Your task to perform on an android device: turn on the 24-hour format for clock Image 0: 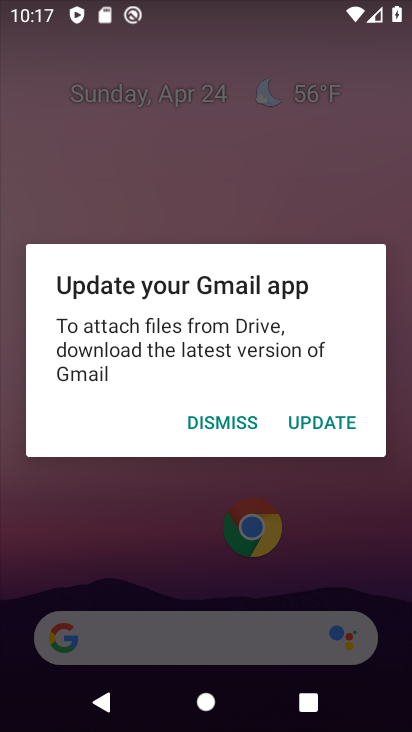
Step 0: click (241, 422)
Your task to perform on an android device: turn on the 24-hour format for clock Image 1: 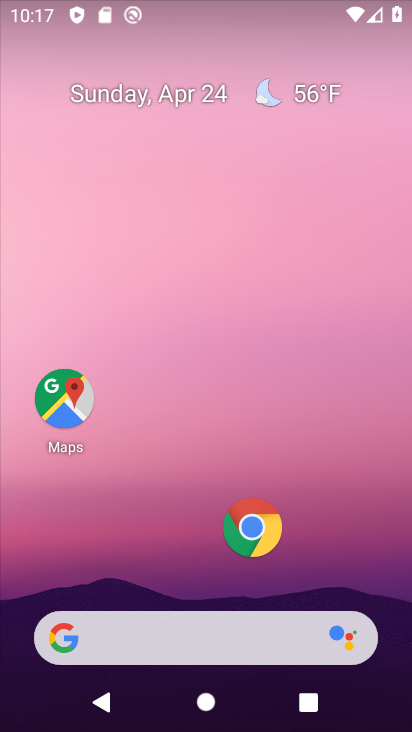
Step 1: drag from (173, 565) to (274, 2)
Your task to perform on an android device: turn on the 24-hour format for clock Image 2: 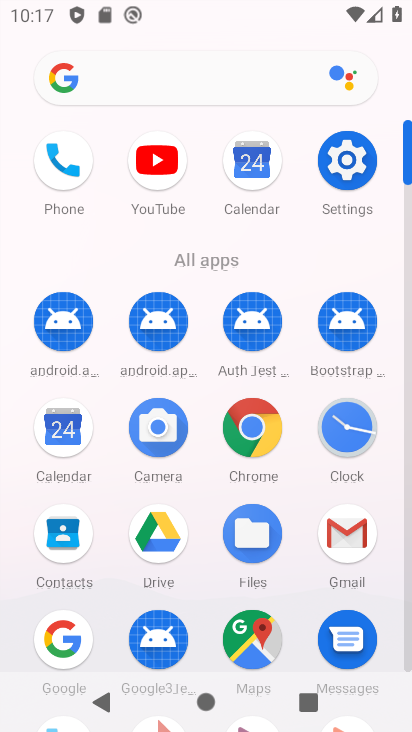
Step 2: click (363, 162)
Your task to perform on an android device: turn on the 24-hour format for clock Image 3: 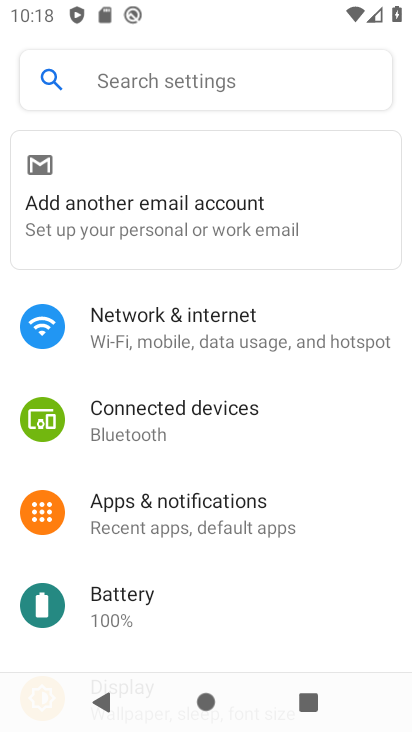
Step 3: drag from (199, 528) to (273, 8)
Your task to perform on an android device: turn on the 24-hour format for clock Image 4: 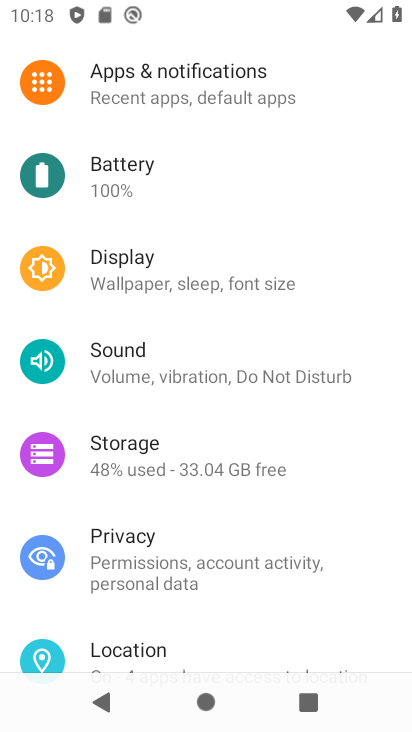
Step 4: drag from (197, 577) to (367, 18)
Your task to perform on an android device: turn on the 24-hour format for clock Image 5: 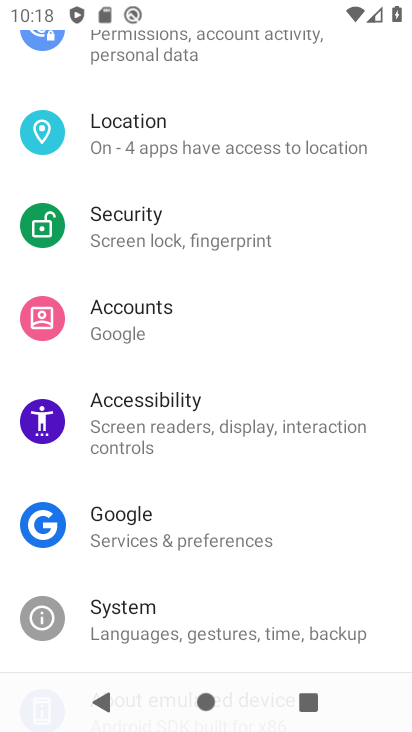
Step 5: click (163, 626)
Your task to perform on an android device: turn on the 24-hour format for clock Image 6: 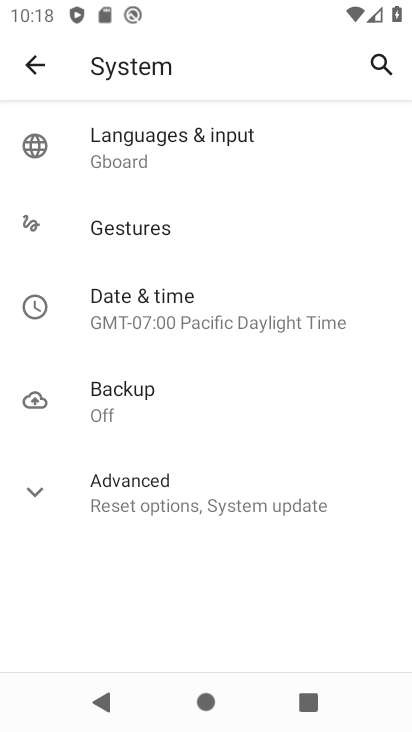
Step 6: click (155, 321)
Your task to perform on an android device: turn on the 24-hour format for clock Image 7: 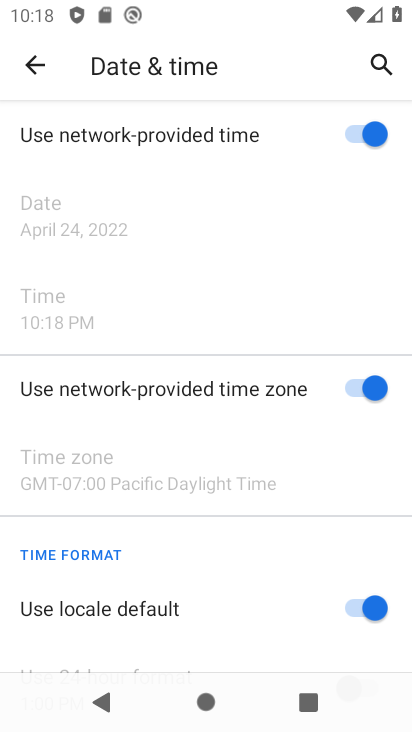
Step 7: drag from (145, 524) to (216, 188)
Your task to perform on an android device: turn on the 24-hour format for clock Image 8: 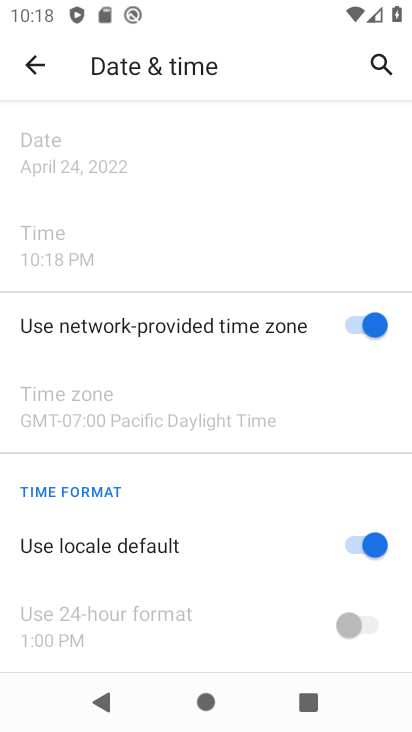
Step 8: click (350, 541)
Your task to perform on an android device: turn on the 24-hour format for clock Image 9: 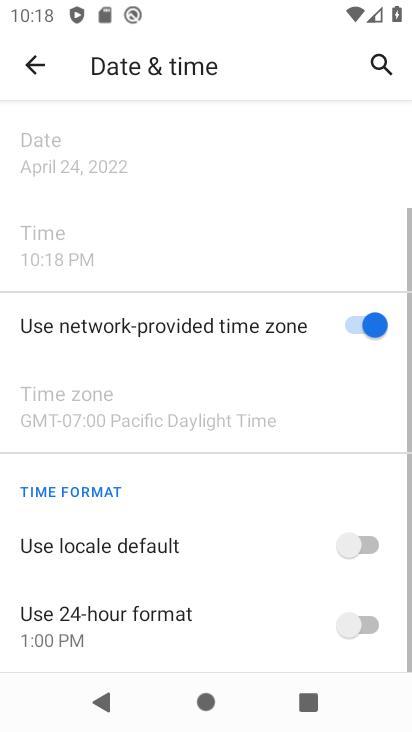
Step 9: click (356, 624)
Your task to perform on an android device: turn on the 24-hour format for clock Image 10: 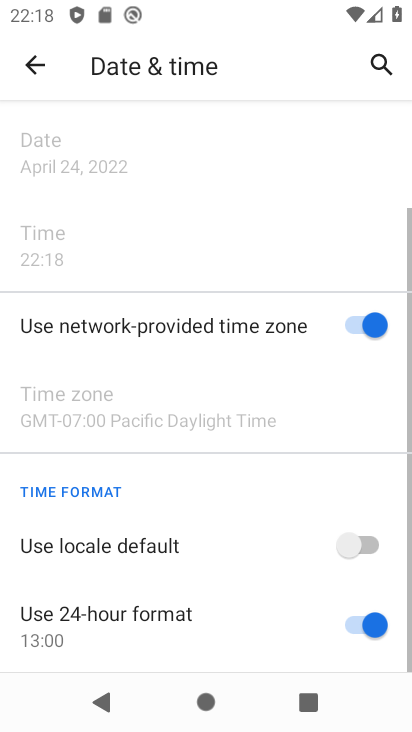
Step 10: task complete